Your task to perform on an android device: check data usage Image 0: 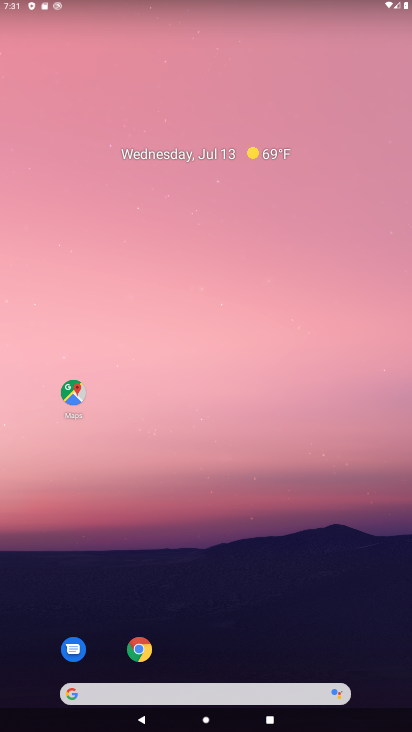
Step 0: click (209, 484)
Your task to perform on an android device: check data usage Image 1: 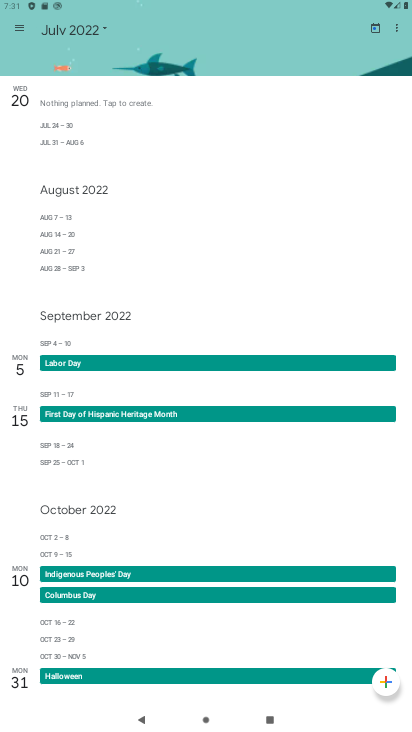
Step 1: press home button
Your task to perform on an android device: check data usage Image 2: 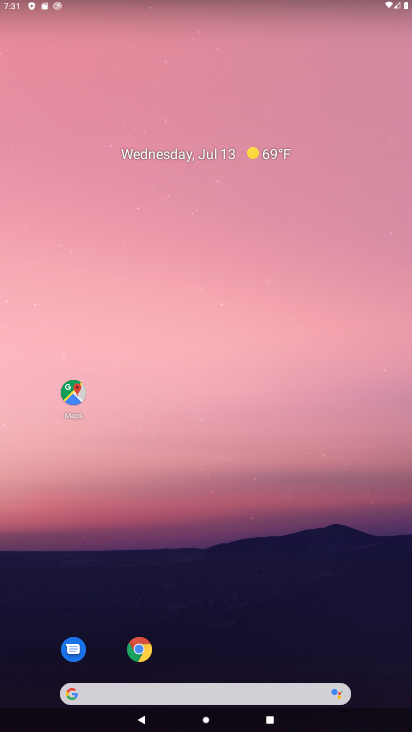
Step 2: drag from (247, 636) to (285, 236)
Your task to perform on an android device: check data usage Image 3: 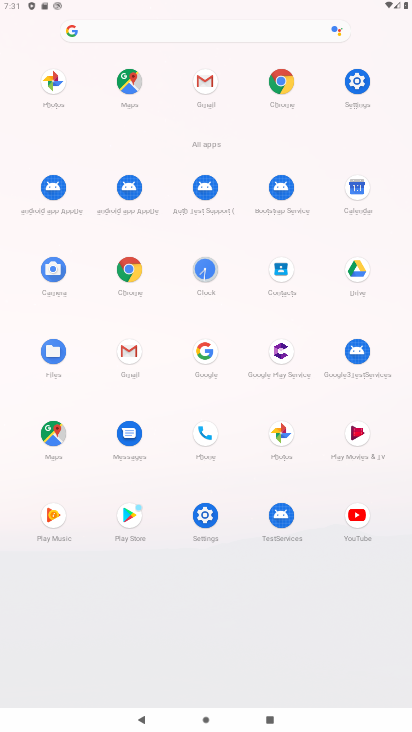
Step 3: click (352, 81)
Your task to perform on an android device: check data usage Image 4: 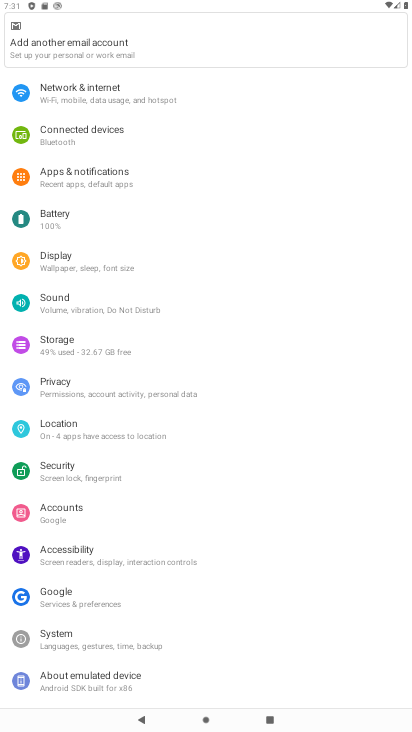
Step 4: click (119, 98)
Your task to perform on an android device: check data usage Image 5: 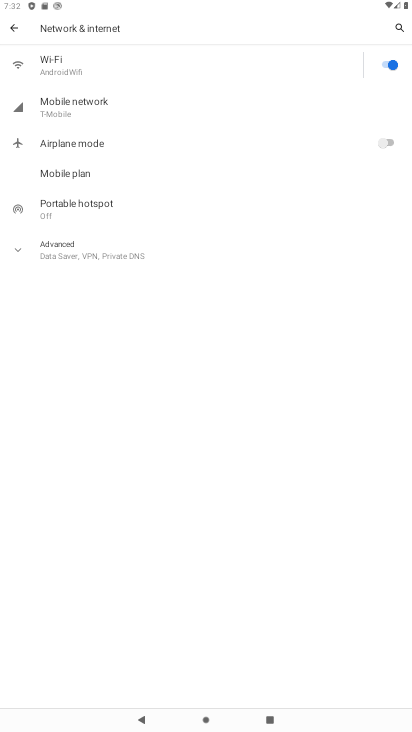
Step 5: click (82, 111)
Your task to perform on an android device: check data usage Image 6: 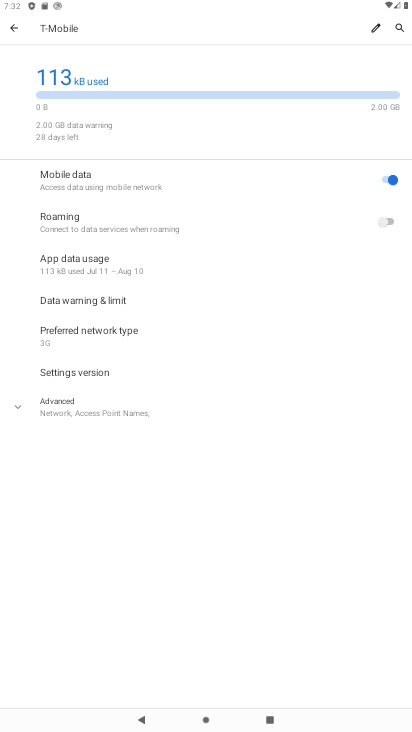
Step 6: task complete